Your task to perform on an android device: snooze an email in the gmail app Image 0: 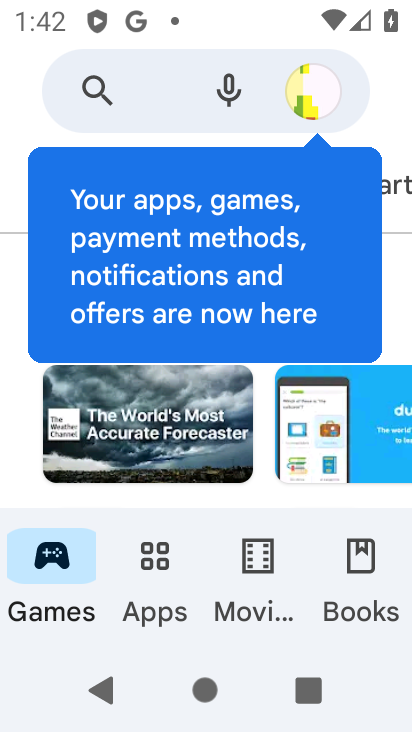
Step 0: press home button
Your task to perform on an android device: snooze an email in the gmail app Image 1: 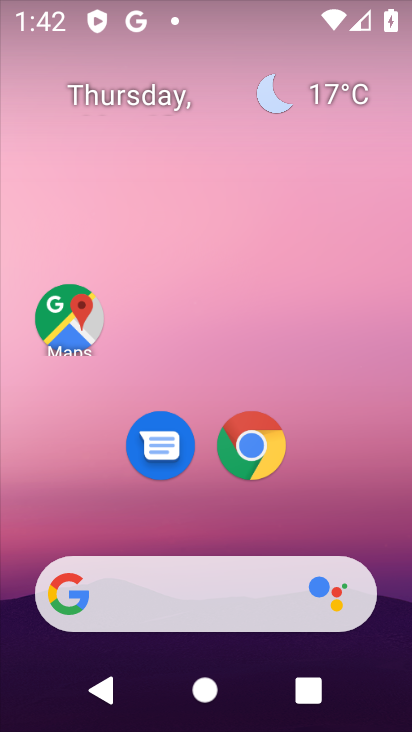
Step 1: drag from (355, 492) to (194, 0)
Your task to perform on an android device: snooze an email in the gmail app Image 2: 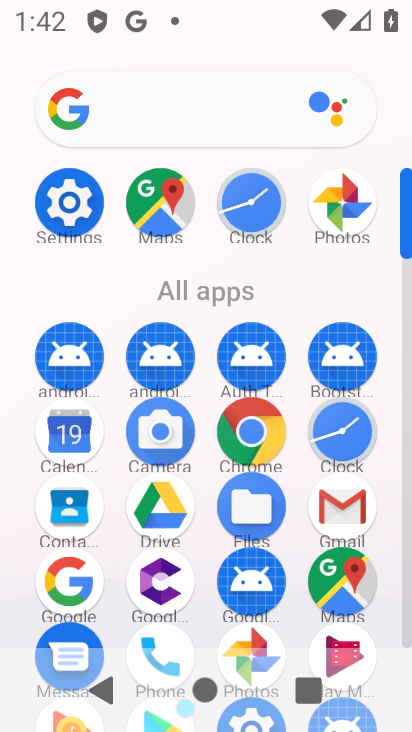
Step 2: click (338, 509)
Your task to perform on an android device: snooze an email in the gmail app Image 3: 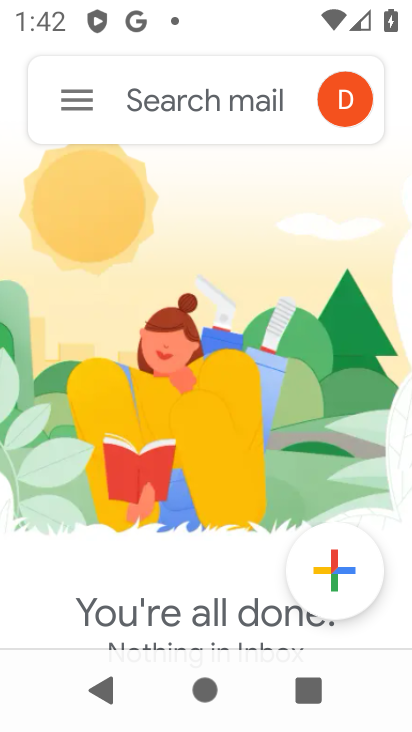
Step 3: click (69, 101)
Your task to perform on an android device: snooze an email in the gmail app Image 4: 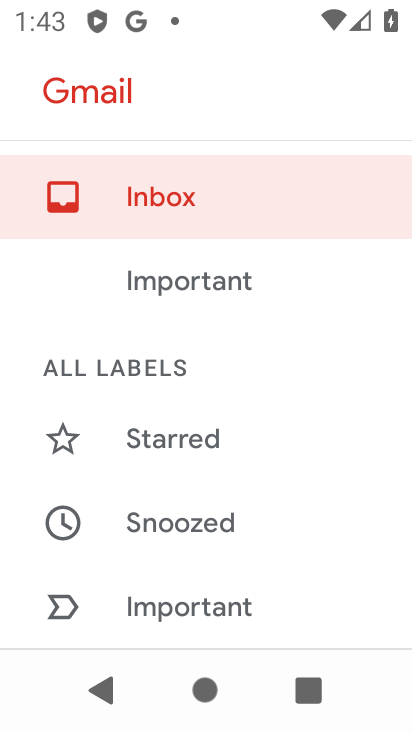
Step 4: drag from (275, 453) to (246, 219)
Your task to perform on an android device: snooze an email in the gmail app Image 5: 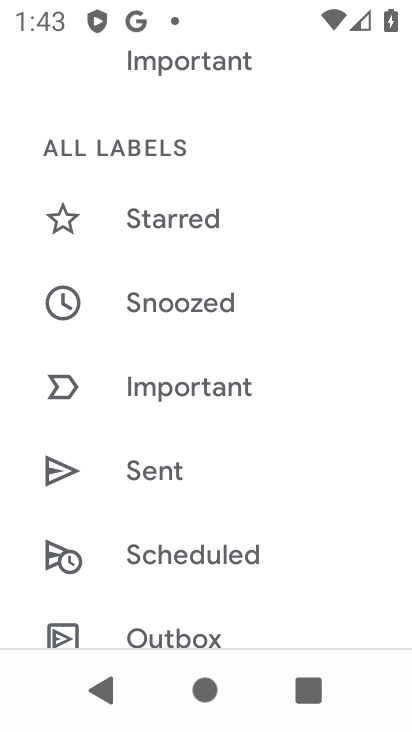
Step 5: drag from (269, 504) to (276, 208)
Your task to perform on an android device: snooze an email in the gmail app Image 6: 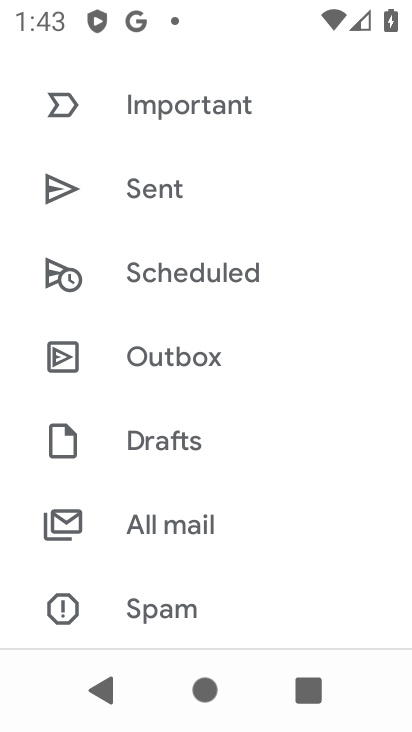
Step 6: drag from (276, 426) to (261, 191)
Your task to perform on an android device: snooze an email in the gmail app Image 7: 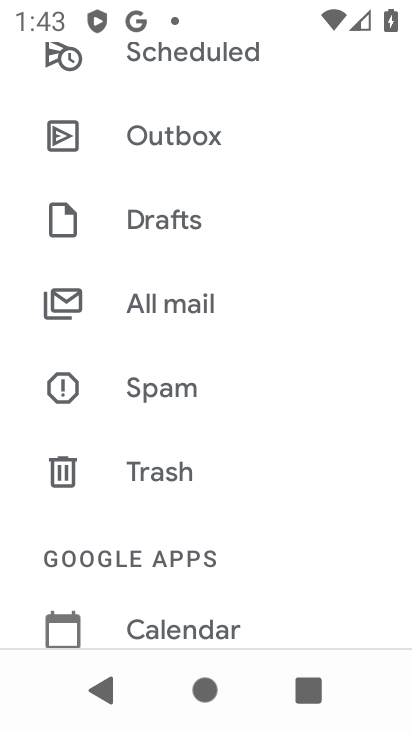
Step 7: drag from (246, 268) to (252, 547)
Your task to perform on an android device: snooze an email in the gmail app Image 8: 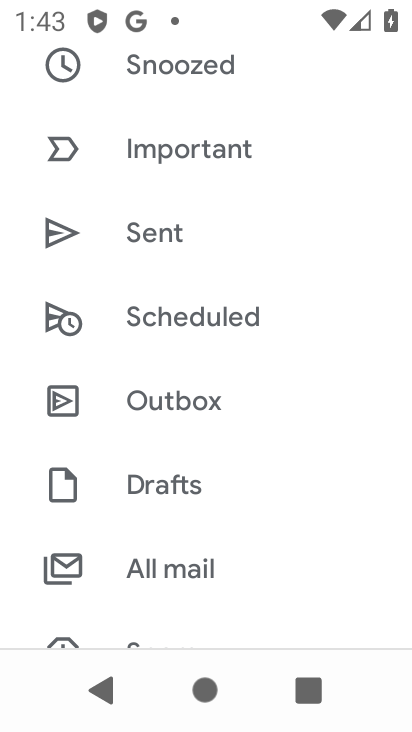
Step 8: click (153, 553)
Your task to perform on an android device: snooze an email in the gmail app Image 9: 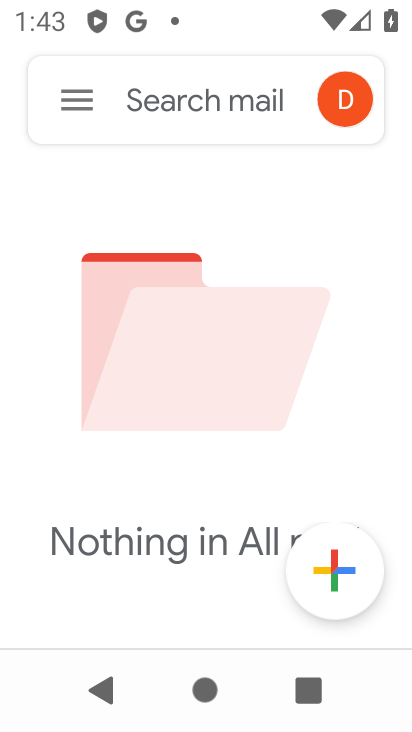
Step 9: task complete